Your task to perform on an android device: Search for seafood restaurants on Google Maps Image 0: 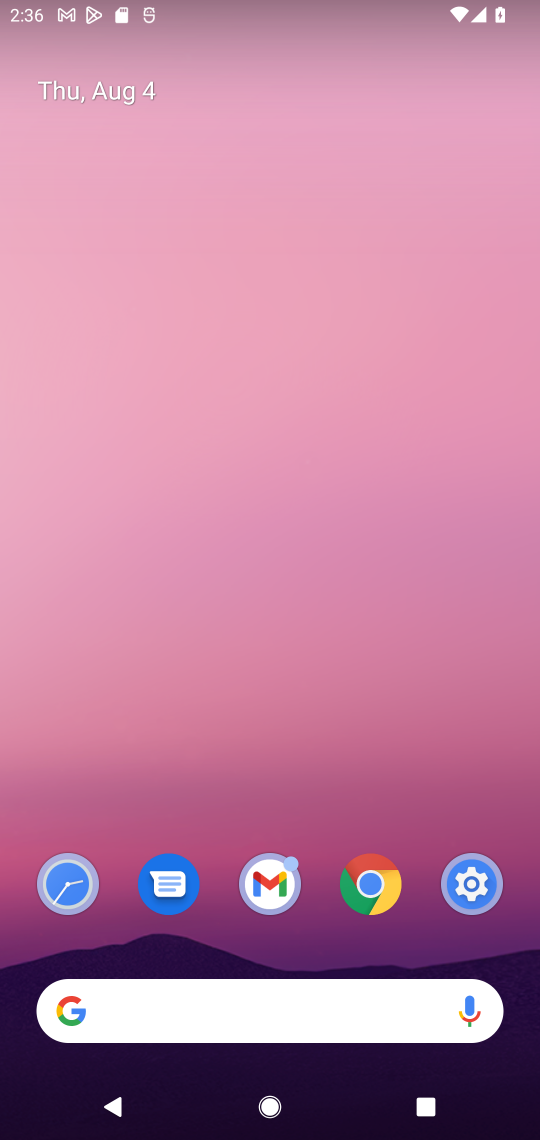
Step 0: drag from (319, 962) to (367, 237)
Your task to perform on an android device: Search for seafood restaurants on Google Maps Image 1: 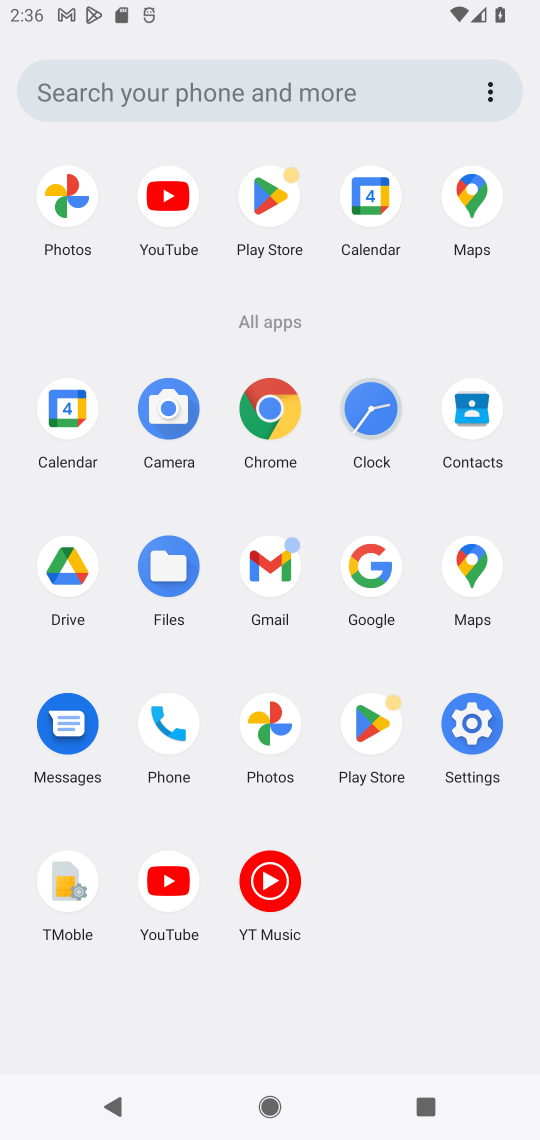
Step 1: click (454, 612)
Your task to perform on an android device: Search for seafood restaurants on Google Maps Image 2: 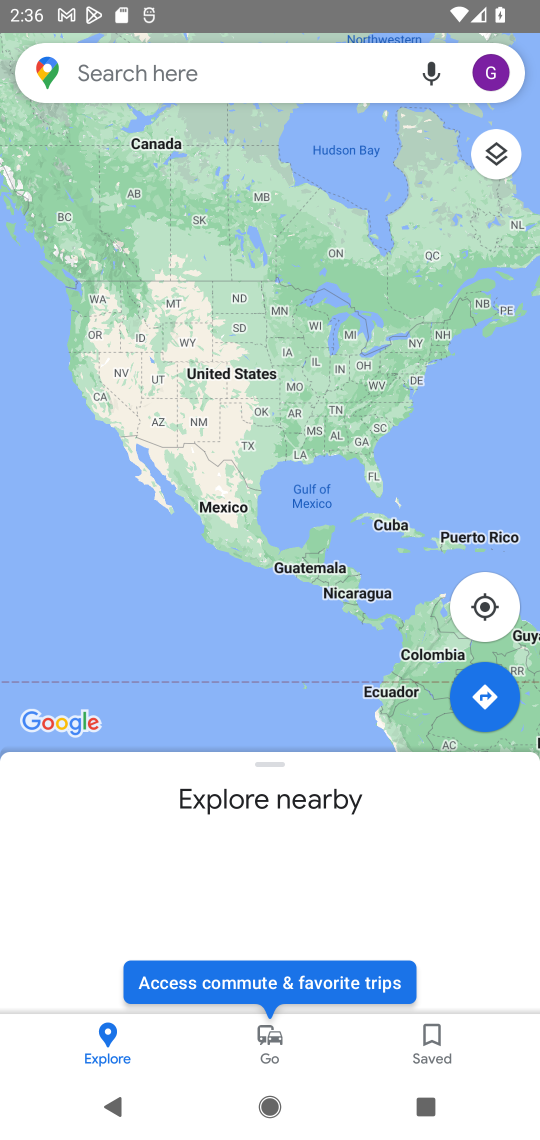
Step 2: click (281, 67)
Your task to perform on an android device: Search for seafood restaurants on Google Maps Image 3: 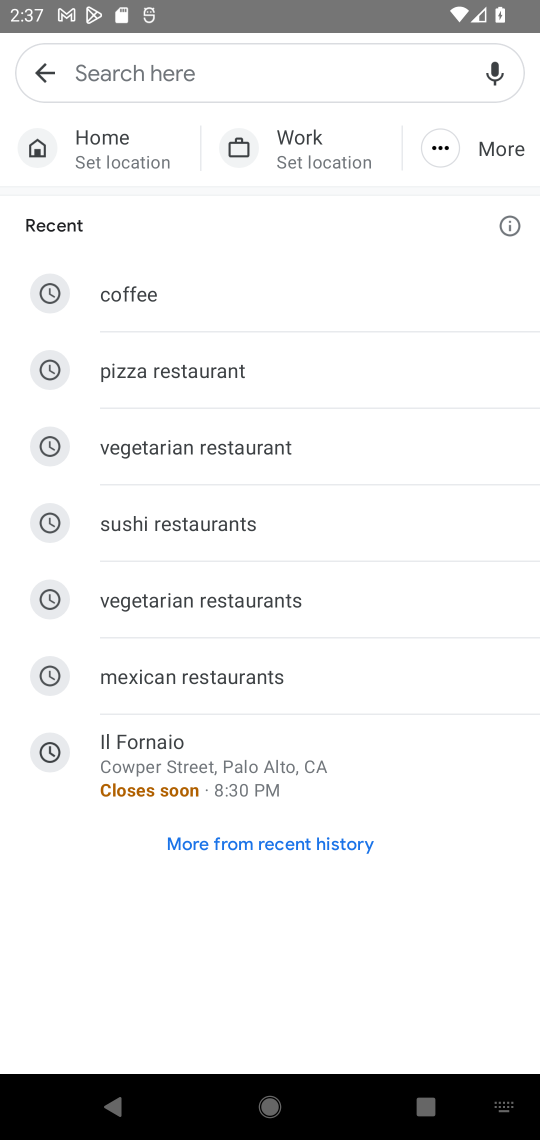
Step 3: type "seafood"
Your task to perform on an android device: Search for seafood restaurants on Google Maps Image 4: 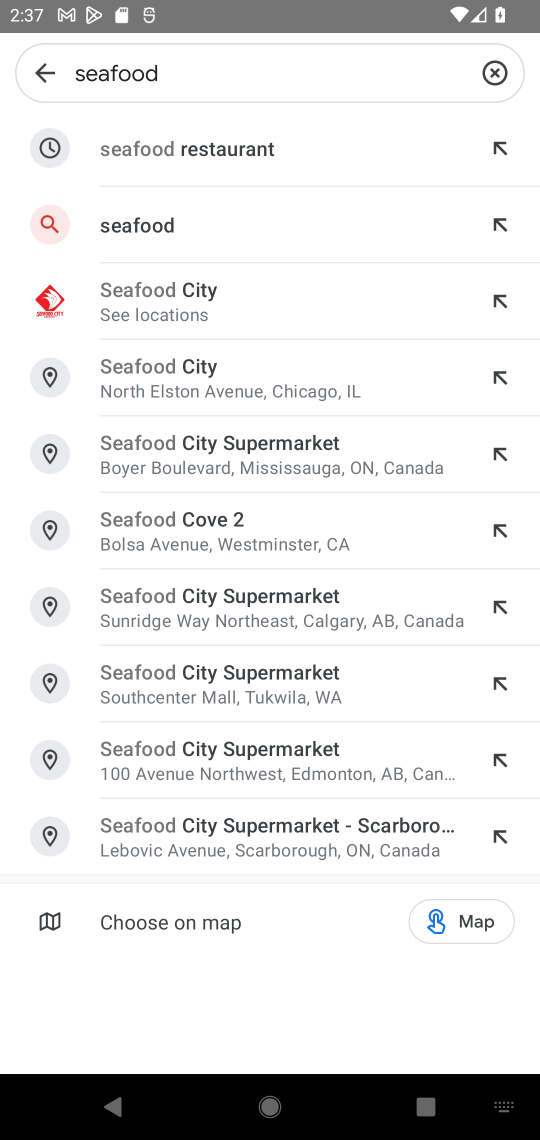
Step 4: click (257, 226)
Your task to perform on an android device: Search for seafood restaurants on Google Maps Image 5: 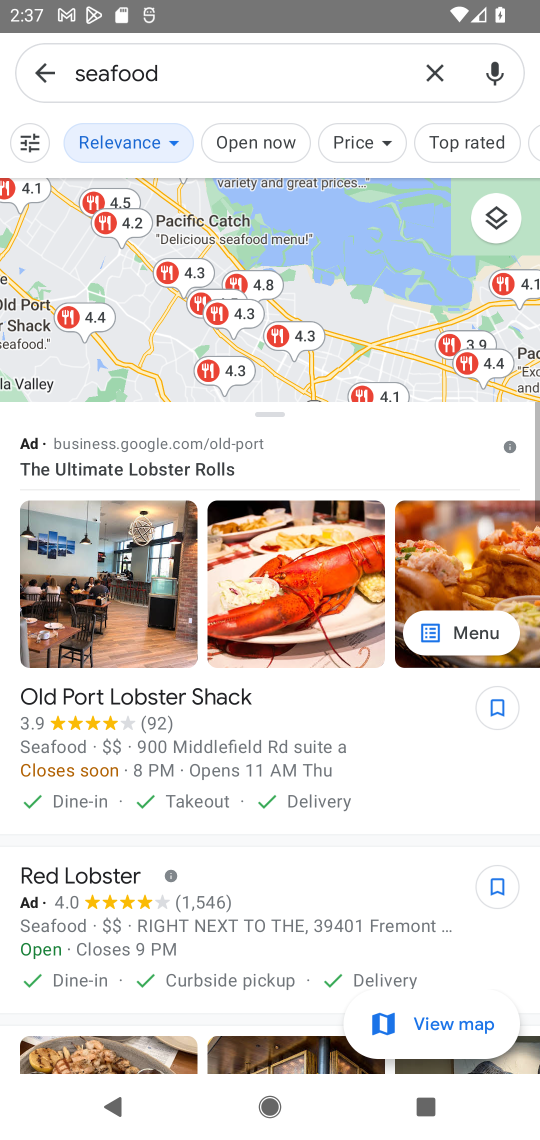
Step 5: task complete